Your task to perform on an android device: Go to notification settings Image 0: 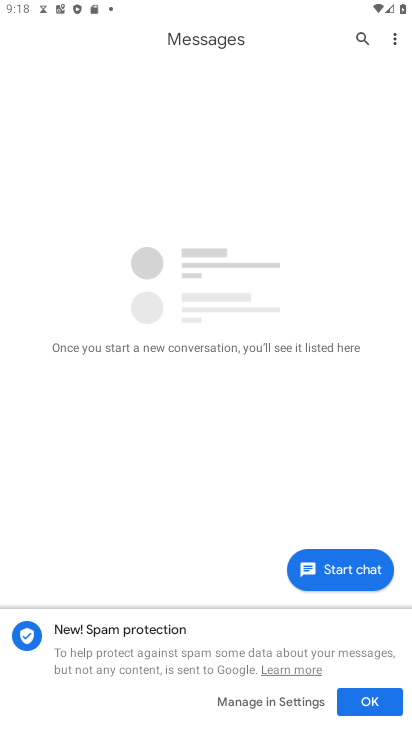
Step 0: press home button
Your task to perform on an android device: Go to notification settings Image 1: 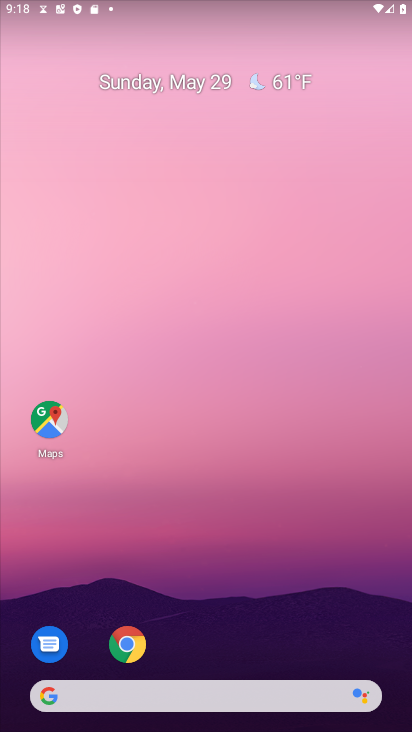
Step 1: drag from (191, 710) to (237, 128)
Your task to perform on an android device: Go to notification settings Image 2: 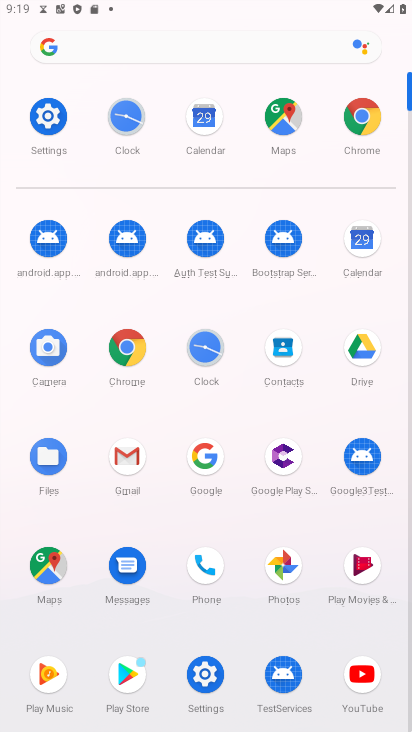
Step 2: click (205, 663)
Your task to perform on an android device: Go to notification settings Image 3: 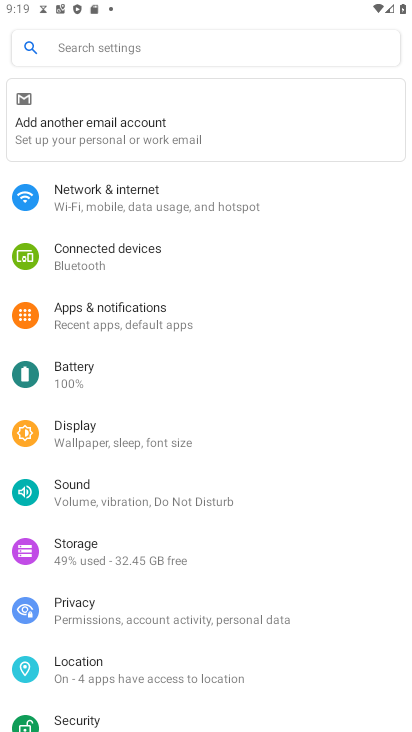
Step 3: click (145, 313)
Your task to perform on an android device: Go to notification settings Image 4: 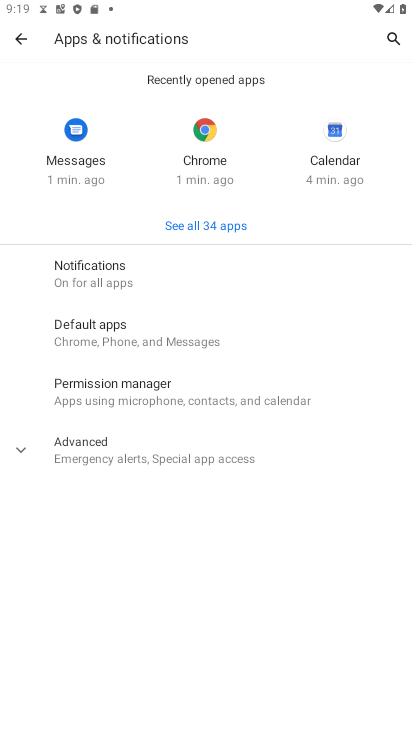
Step 4: task complete